Your task to perform on an android device: check data usage Image 0: 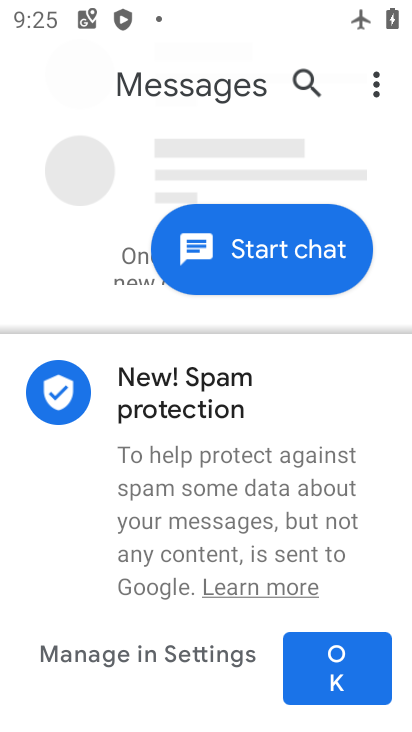
Step 0: press home button
Your task to perform on an android device: check data usage Image 1: 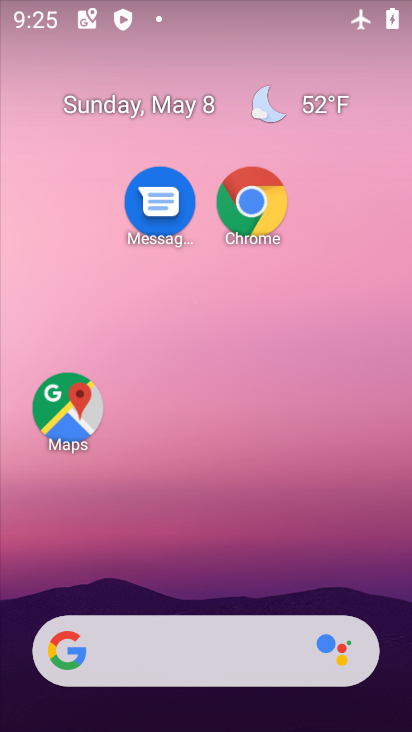
Step 1: drag from (200, 597) to (294, 23)
Your task to perform on an android device: check data usage Image 2: 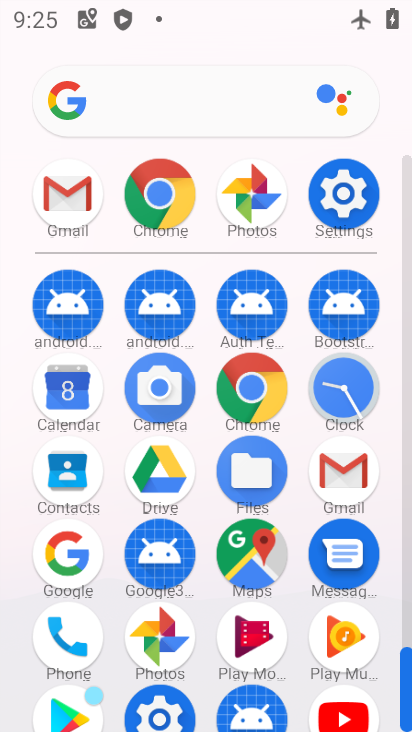
Step 2: click (352, 207)
Your task to perform on an android device: check data usage Image 3: 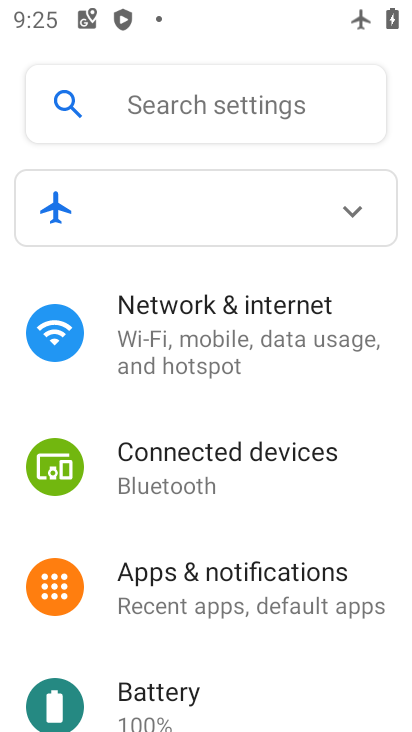
Step 3: click (183, 336)
Your task to perform on an android device: check data usage Image 4: 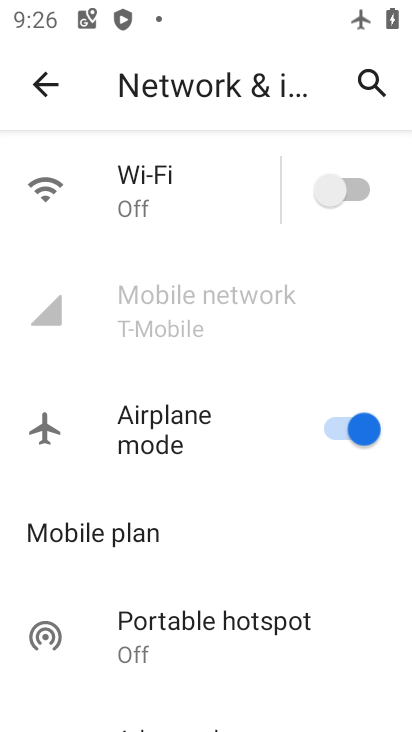
Step 4: drag from (181, 457) to (190, 75)
Your task to perform on an android device: check data usage Image 5: 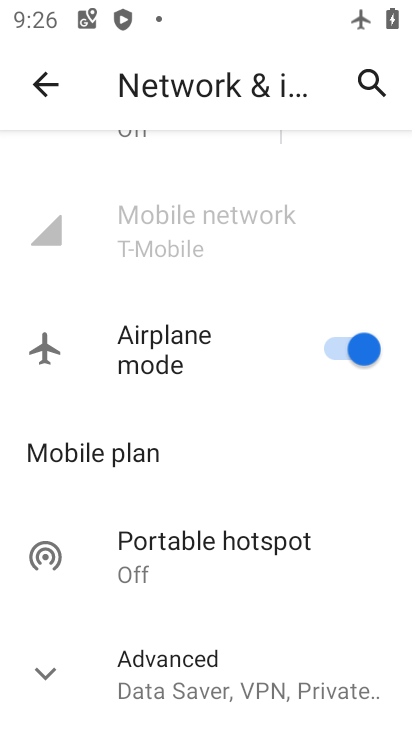
Step 5: click (204, 658)
Your task to perform on an android device: check data usage Image 6: 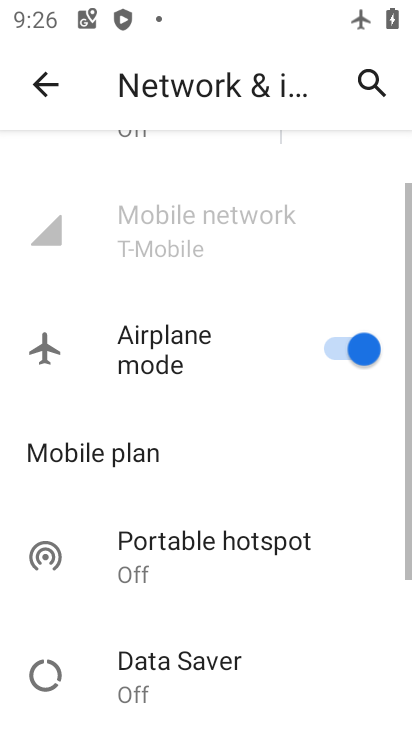
Step 6: task complete